Your task to perform on an android device: turn off picture-in-picture Image 0: 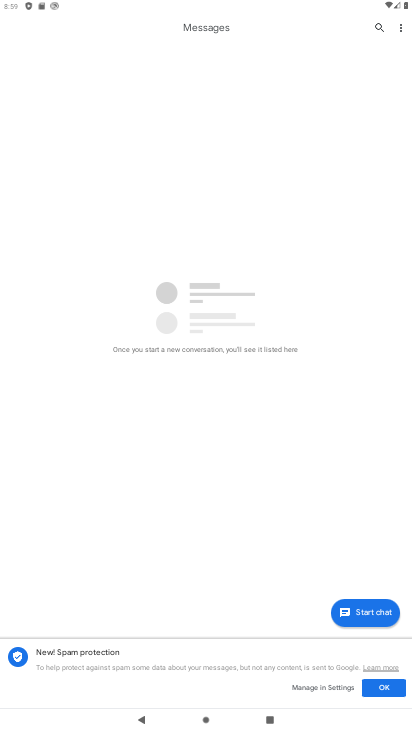
Step 0: press home button
Your task to perform on an android device: turn off picture-in-picture Image 1: 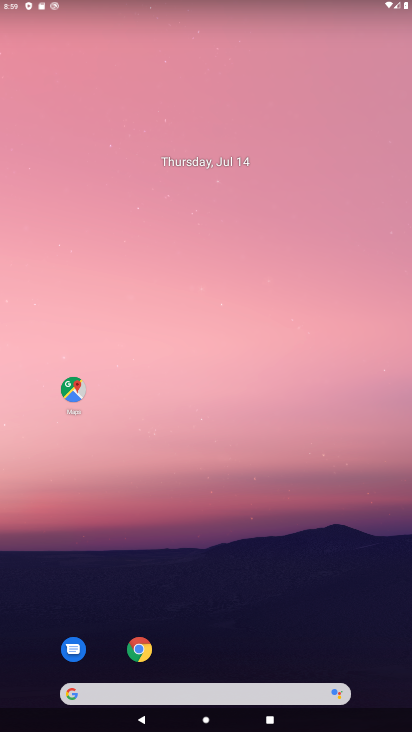
Step 1: click (146, 651)
Your task to perform on an android device: turn off picture-in-picture Image 2: 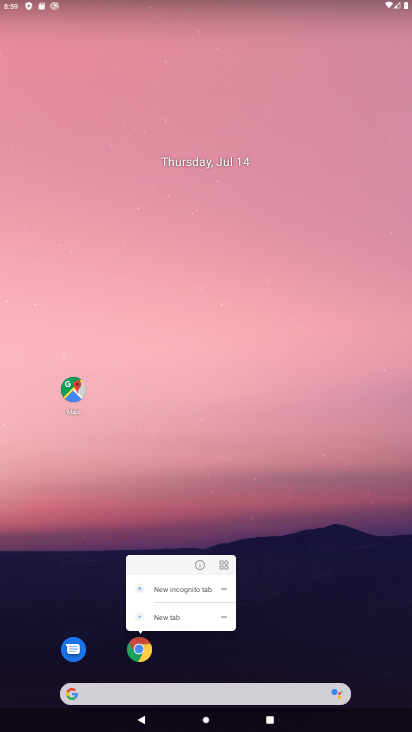
Step 2: click (199, 565)
Your task to perform on an android device: turn off picture-in-picture Image 3: 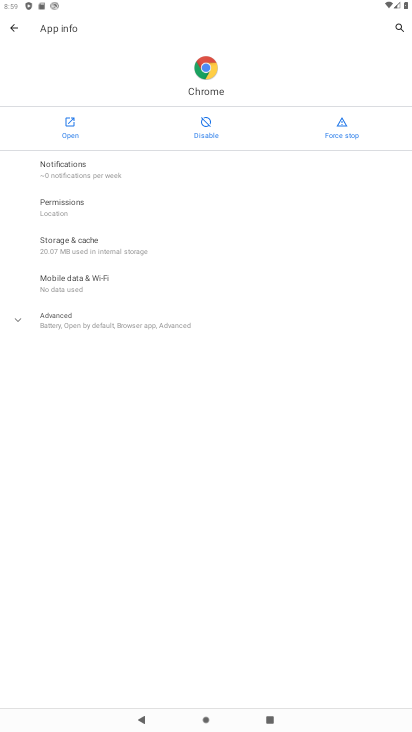
Step 3: click (104, 332)
Your task to perform on an android device: turn off picture-in-picture Image 4: 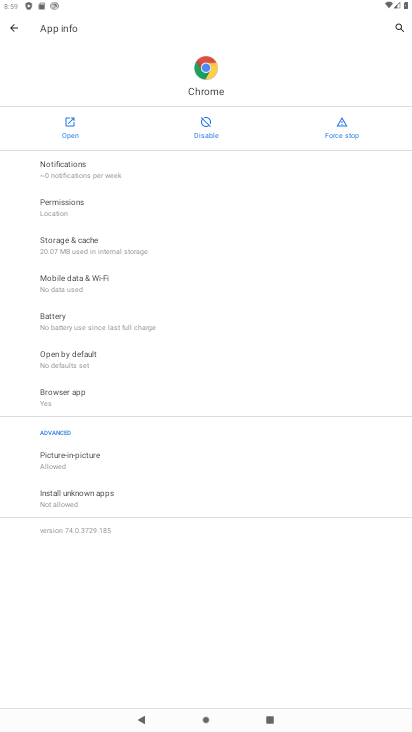
Step 4: click (92, 460)
Your task to perform on an android device: turn off picture-in-picture Image 5: 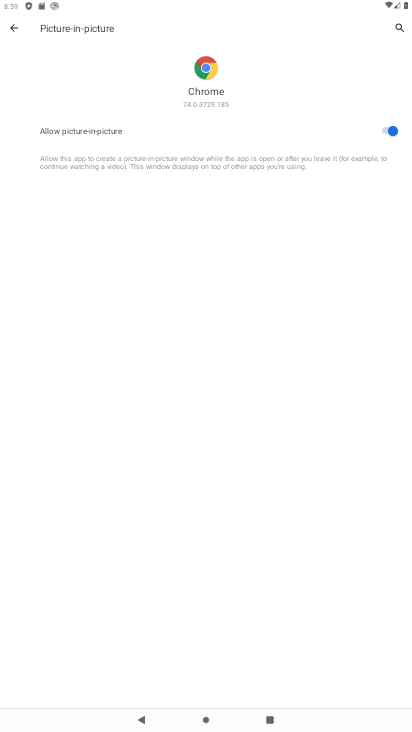
Step 5: click (388, 131)
Your task to perform on an android device: turn off picture-in-picture Image 6: 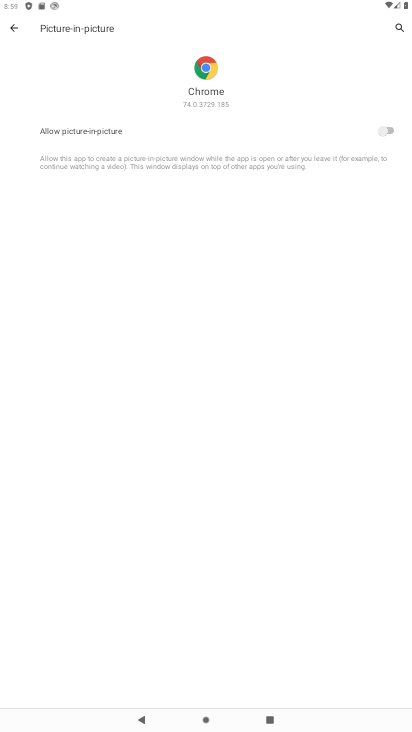
Step 6: task complete